Your task to perform on an android device: Open Google Chrome and click the shortcut for Amazon.com Image 0: 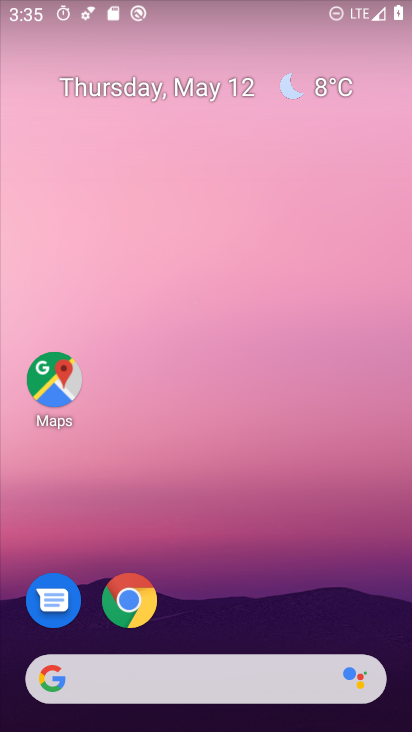
Step 0: click (125, 599)
Your task to perform on an android device: Open Google Chrome and click the shortcut for Amazon.com Image 1: 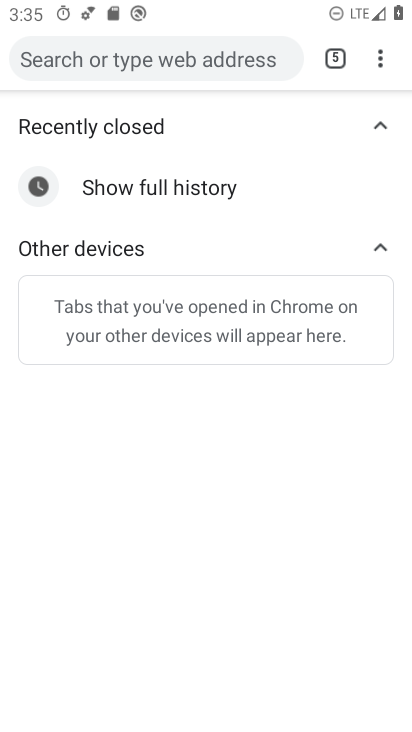
Step 1: click (380, 64)
Your task to perform on an android device: Open Google Chrome and click the shortcut for Amazon.com Image 2: 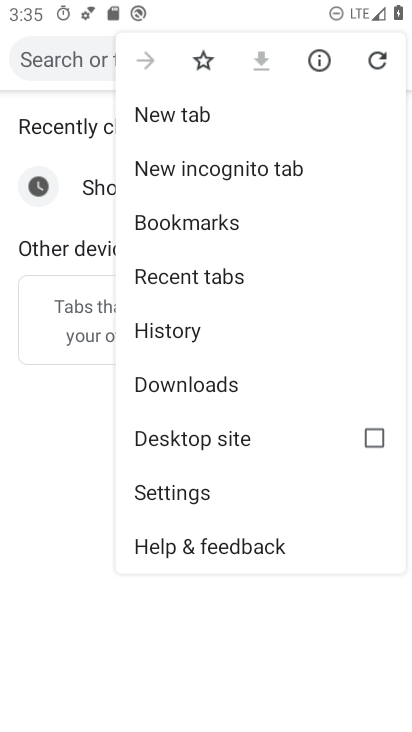
Step 2: click (178, 112)
Your task to perform on an android device: Open Google Chrome and click the shortcut for Amazon.com Image 3: 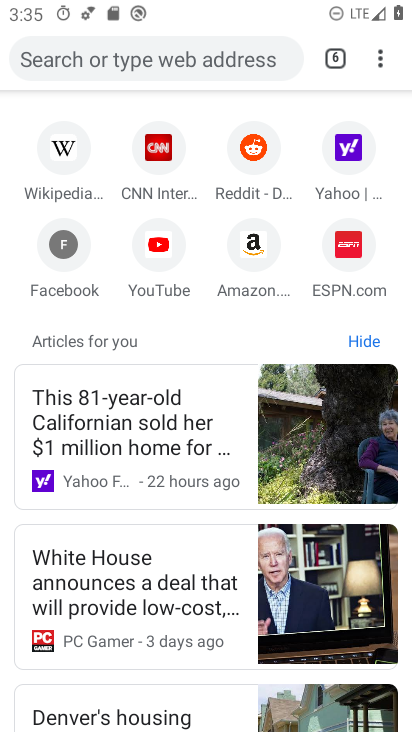
Step 3: click (256, 254)
Your task to perform on an android device: Open Google Chrome and click the shortcut for Amazon.com Image 4: 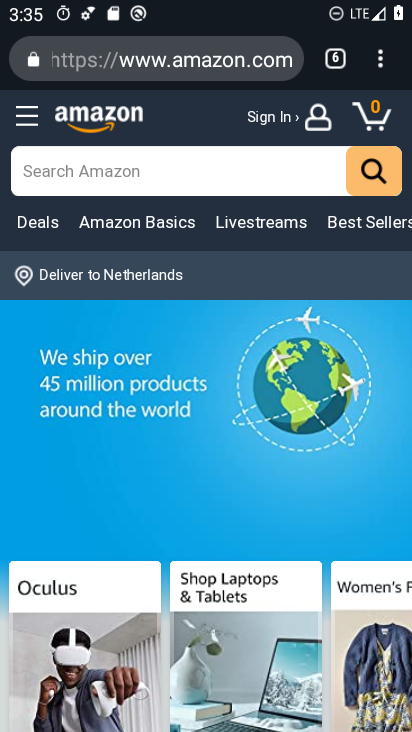
Step 4: task complete